Your task to perform on an android device: Go to privacy settings Image 0: 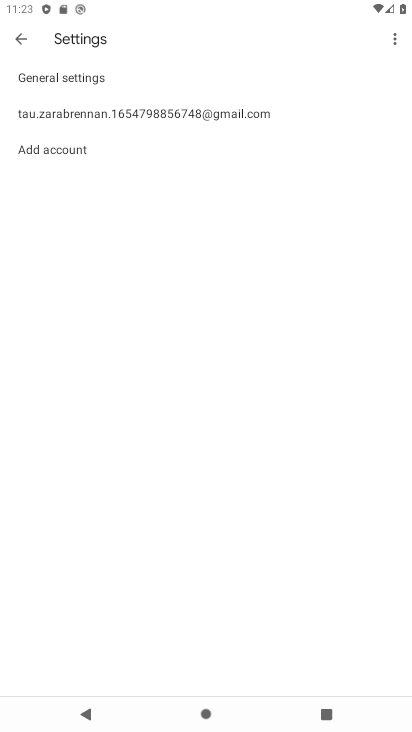
Step 0: drag from (246, 715) to (237, 280)
Your task to perform on an android device: Go to privacy settings Image 1: 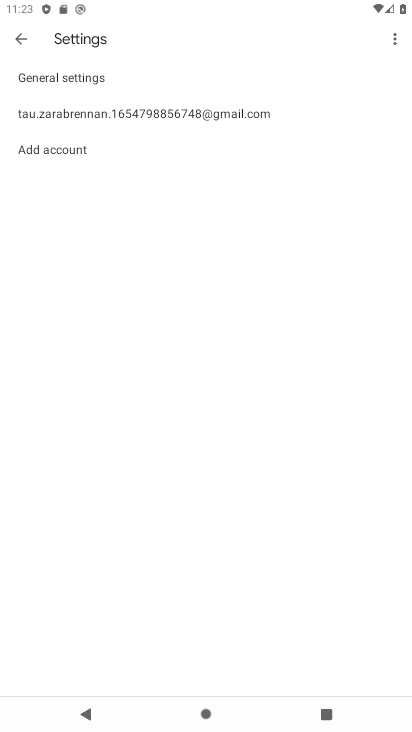
Step 1: press home button
Your task to perform on an android device: Go to privacy settings Image 2: 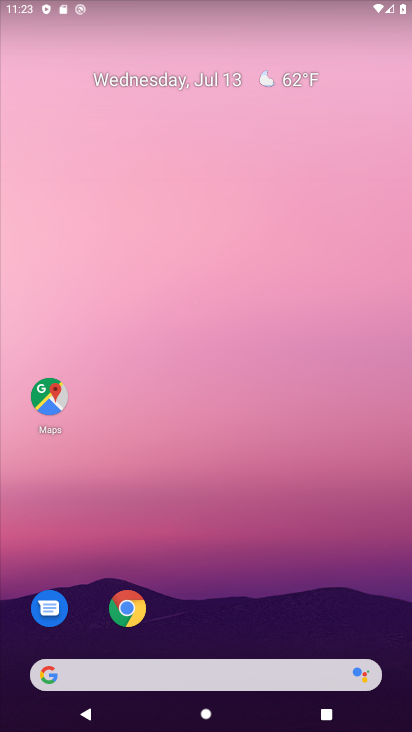
Step 2: drag from (242, 728) to (243, 196)
Your task to perform on an android device: Go to privacy settings Image 3: 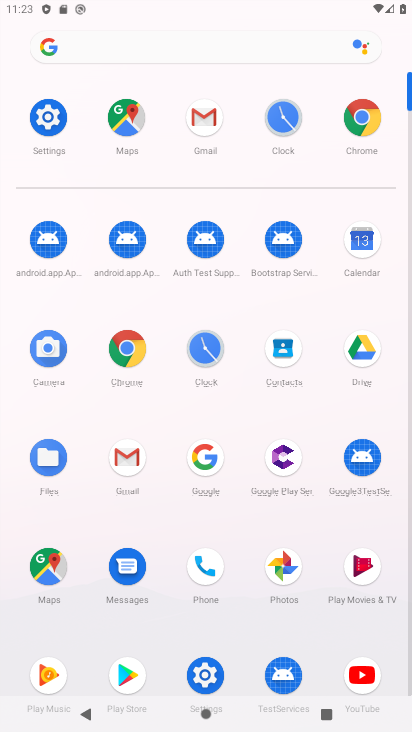
Step 3: click (46, 117)
Your task to perform on an android device: Go to privacy settings Image 4: 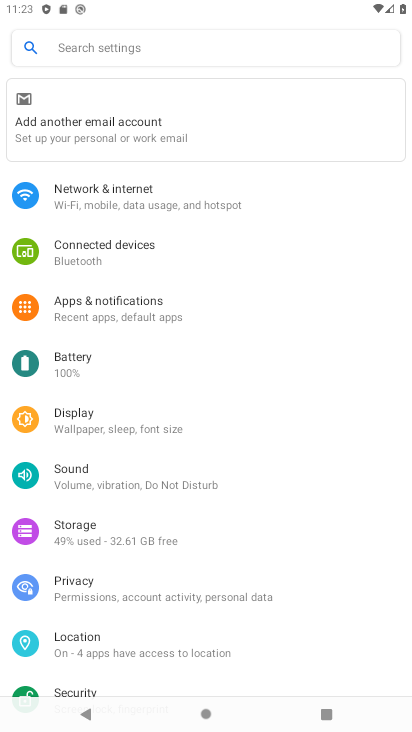
Step 4: click (74, 579)
Your task to perform on an android device: Go to privacy settings Image 5: 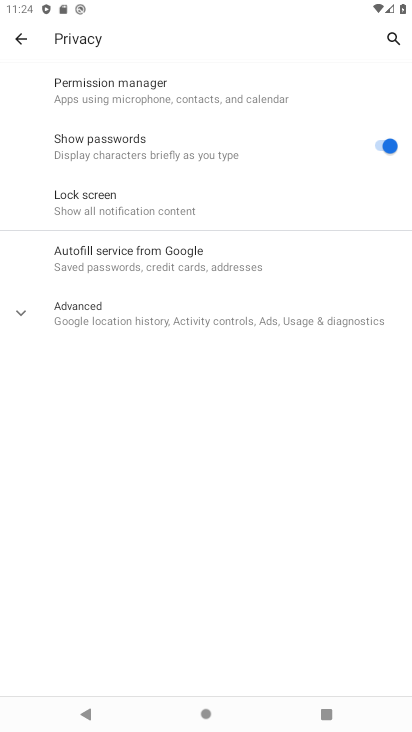
Step 5: task complete